Your task to perform on an android device: Open the calendar app, open the side menu, and click the "Day" option Image 0: 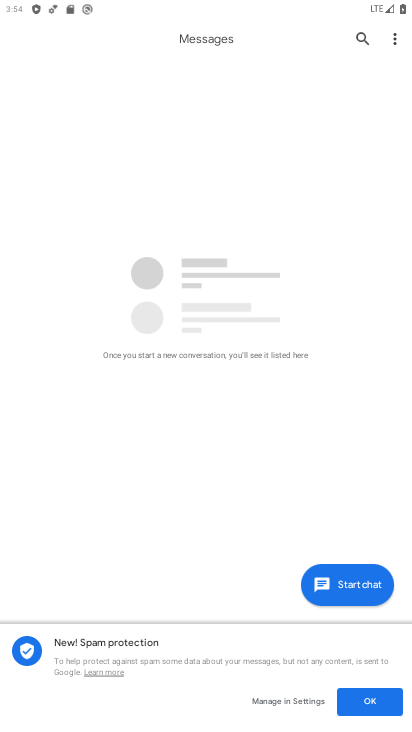
Step 0: press back button
Your task to perform on an android device: Open the calendar app, open the side menu, and click the "Day" option Image 1: 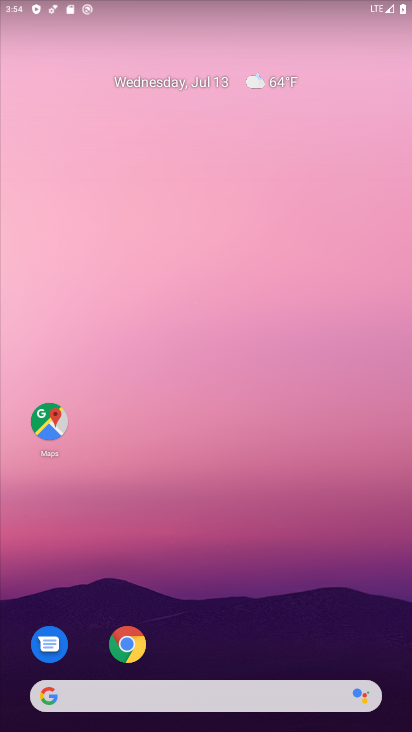
Step 1: drag from (225, 640) to (253, 5)
Your task to perform on an android device: Open the calendar app, open the side menu, and click the "Day" option Image 2: 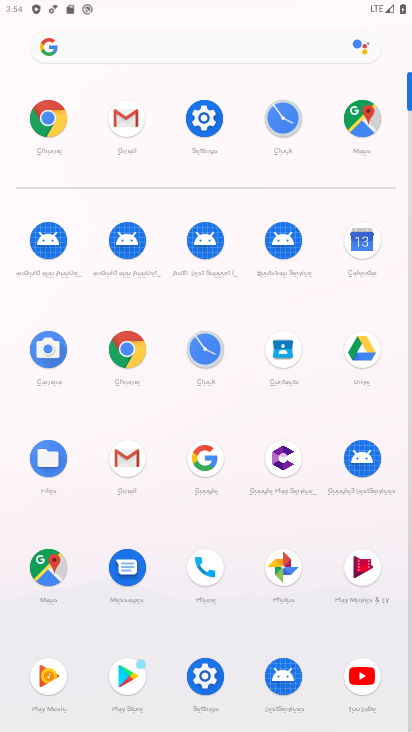
Step 2: click (359, 256)
Your task to perform on an android device: Open the calendar app, open the side menu, and click the "Day" option Image 3: 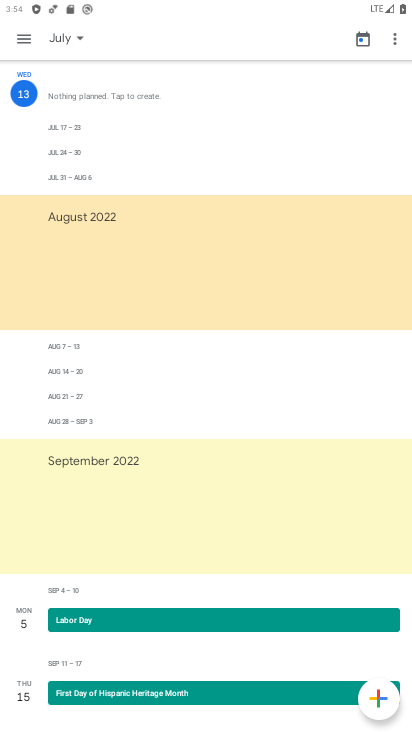
Step 3: click (17, 34)
Your task to perform on an android device: Open the calendar app, open the side menu, and click the "Day" option Image 4: 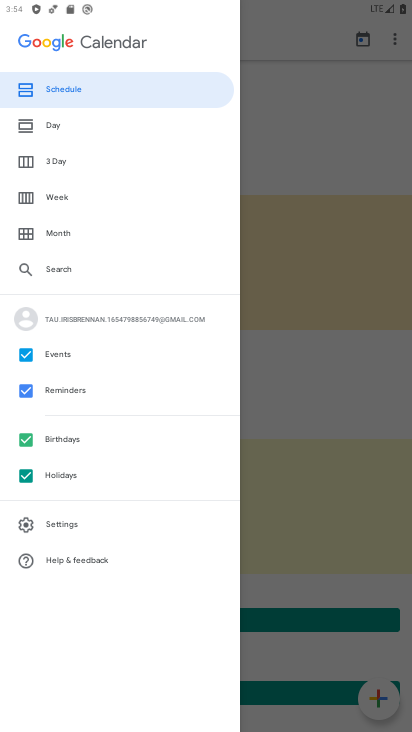
Step 4: click (74, 119)
Your task to perform on an android device: Open the calendar app, open the side menu, and click the "Day" option Image 5: 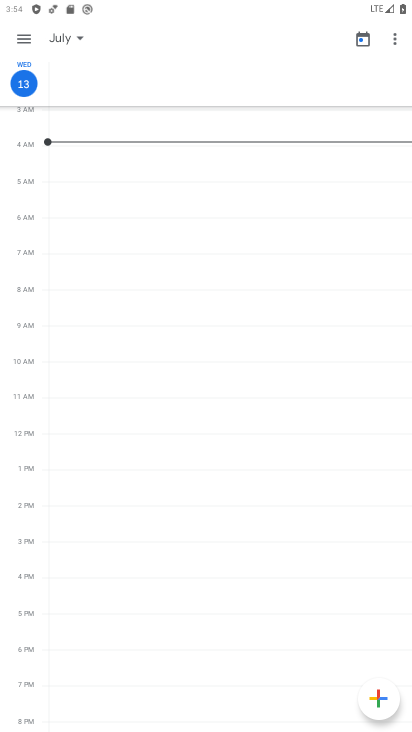
Step 5: task complete